Your task to perform on an android device: open sync settings in chrome Image 0: 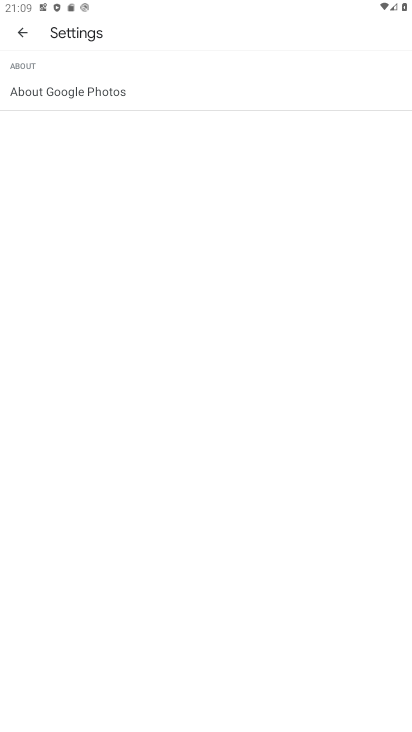
Step 0: press home button
Your task to perform on an android device: open sync settings in chrome Image 1: 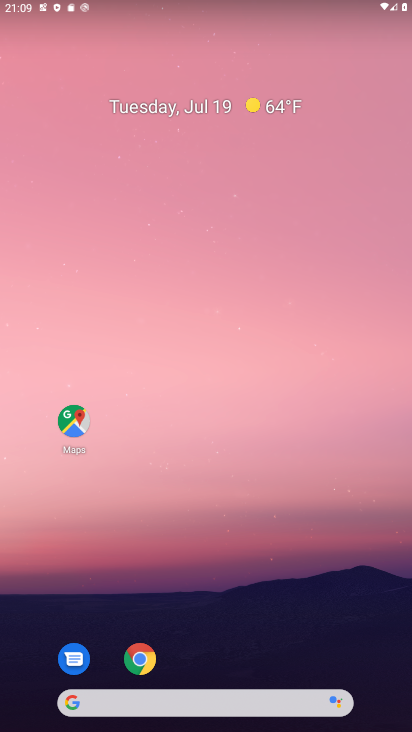
Step 1: click (141, 651)
Your task to perform on an android device: open sync settings in chrome Image 2: 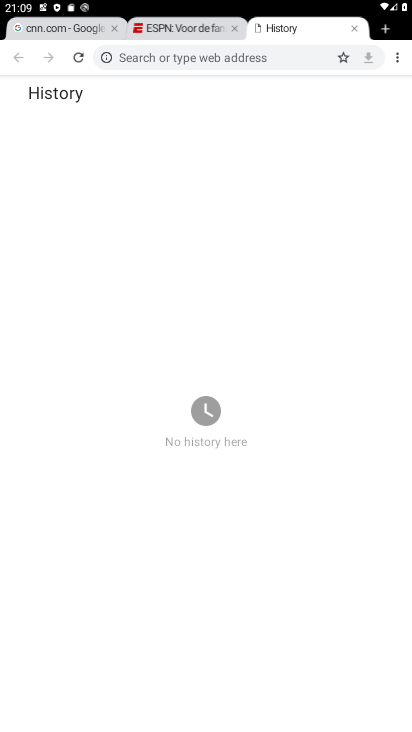
Step 2: click (392, 59)
Your task to perform on an android device: open sync settings in chrome Image 3: 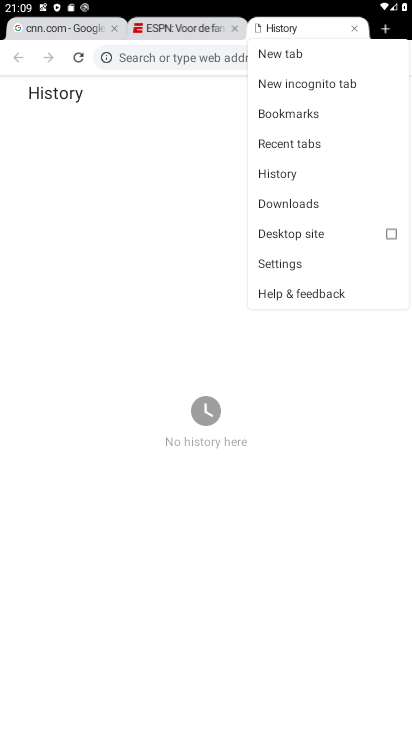
Step 3: click (274, 264)
Your task to perform on an android device: open sync settings in chrome Image 4: 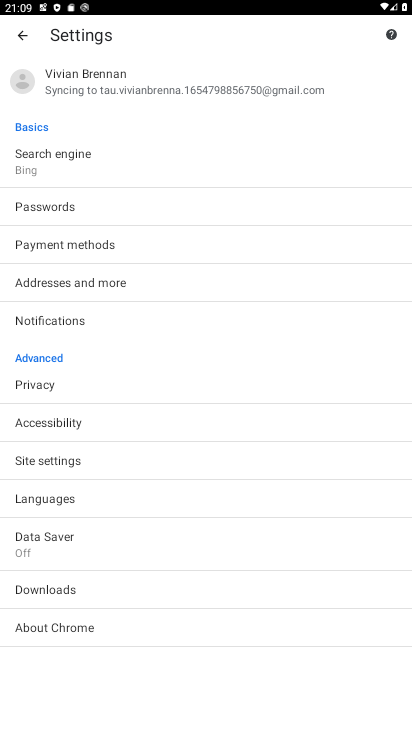
Step 4: click (103, 105)
Your task to perform on an android device: open sync settings in chrome Image 5: 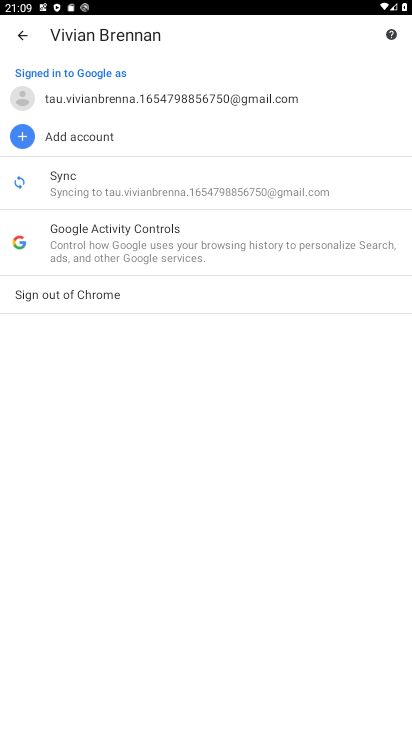
Step 5: click (97, 198)
Your task to perform on an android device: open sync settings in chrome Image 6: 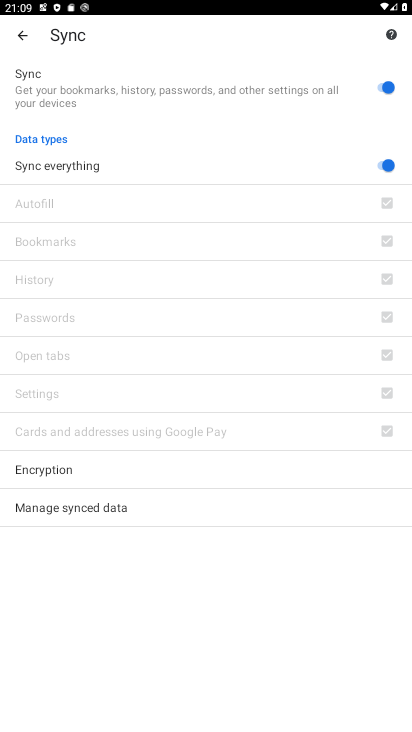
Step 6: task complete